Your task to perform on an android device: refresh tabs in the chrome app Image 0: 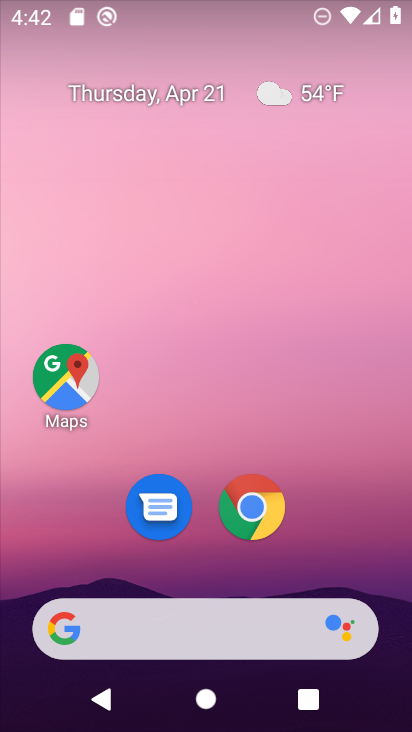
Step 0: drag from (340, 502) to (384, 143)
Your task to perform on an android device: refresh tabs in the chrome app Image 1: 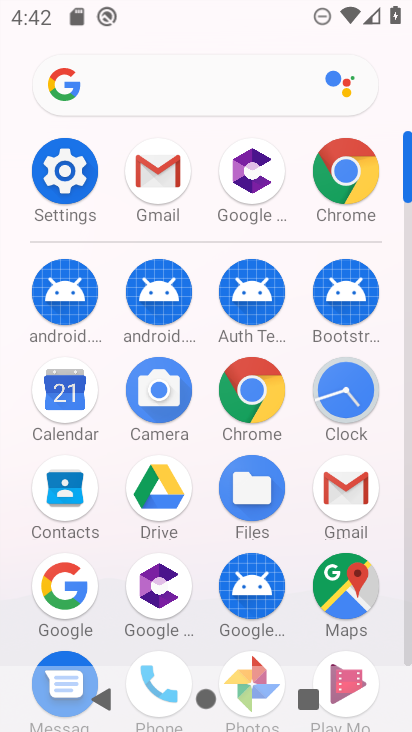
Step 1: click (347, 156)
Your task to perform on an android device: refresh tabs in the chrome app Image 2: 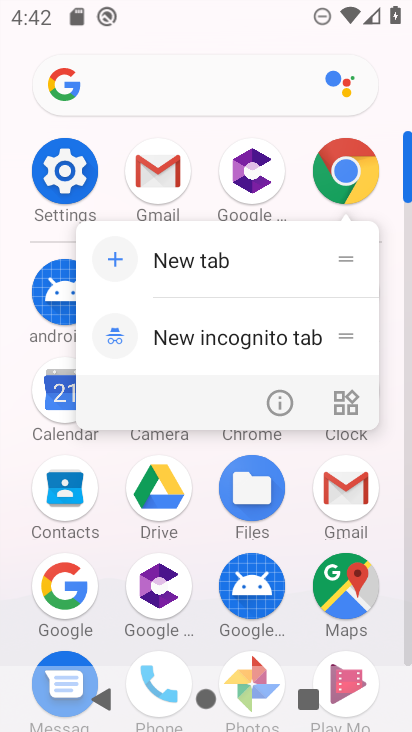
Step 2: click (348, 154)
Your task to perform on an android device: refresh tabs in the chrome app Image 3: 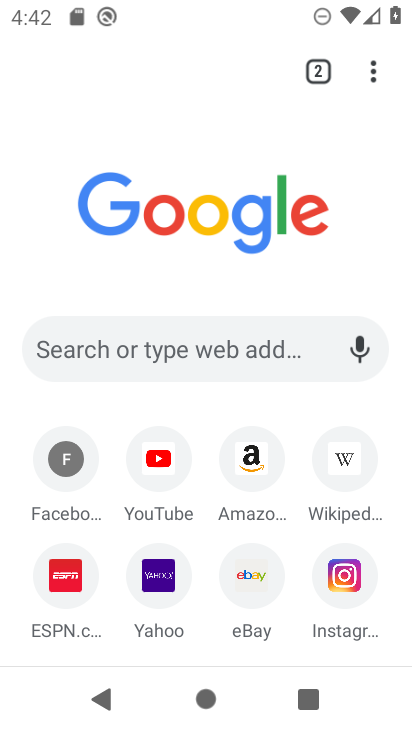
Step 3: click (372, 84)
Your task to perform on an android device: refresh tabs in the chrome app Image 4: 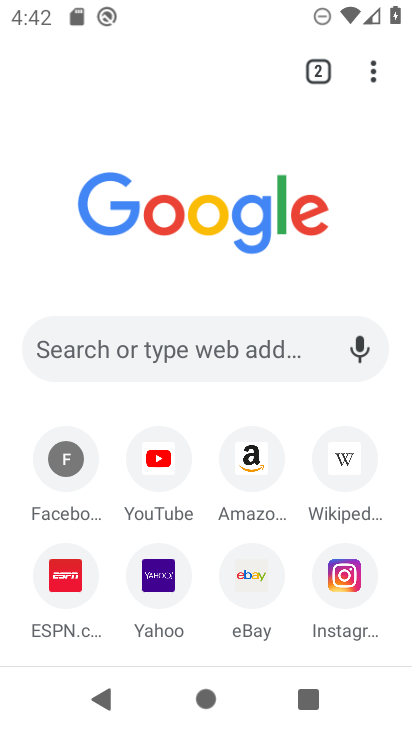
Step 4: task complete